Your task to perform on an android device: toggle airplane mode Image 0: 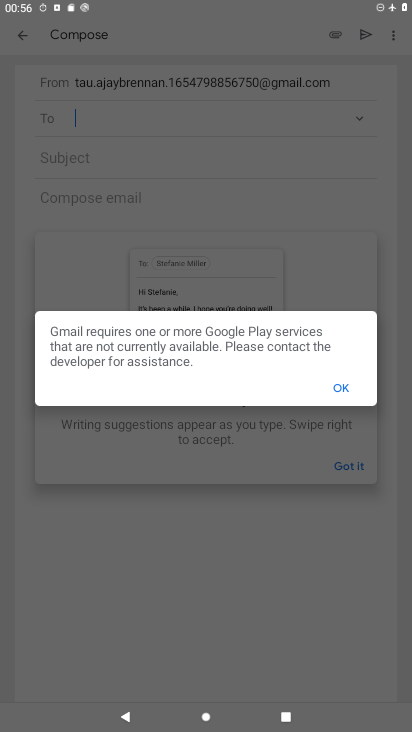
Step 0: press home button
Your task to perform on an android device: toggle airplane mode Image 1: 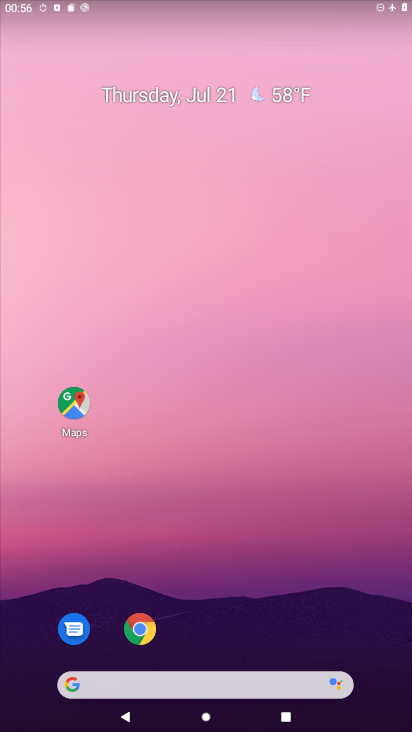
Step 1: drag from (221, 637) to (227, 193)
Your task to perform on an android device: toggle airplane mode Image 2: 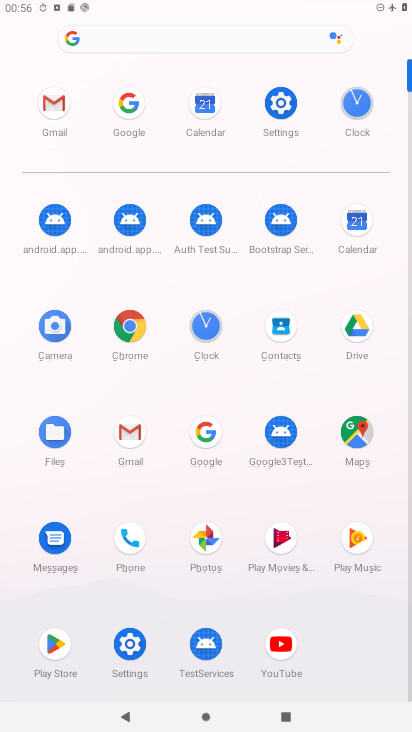
Step 2: click (277, 130)
Your task to perform on an android device: toggle airplane mode Image 3: 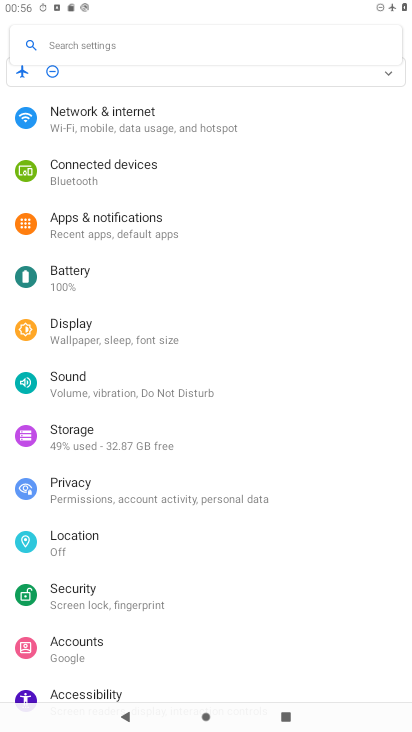
Step 3: click (171, 130)
Your task to perform on an android device: toggle airplane mode Image 4: 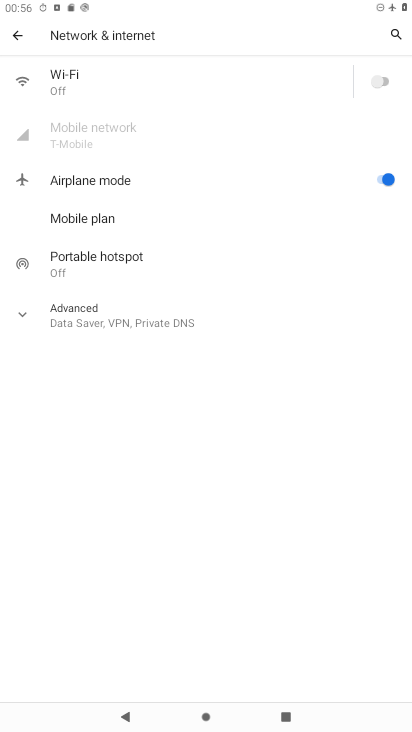
Step 4: click (384, 186)
Your task to perform on an android device: toggle airplane mode Image 5: 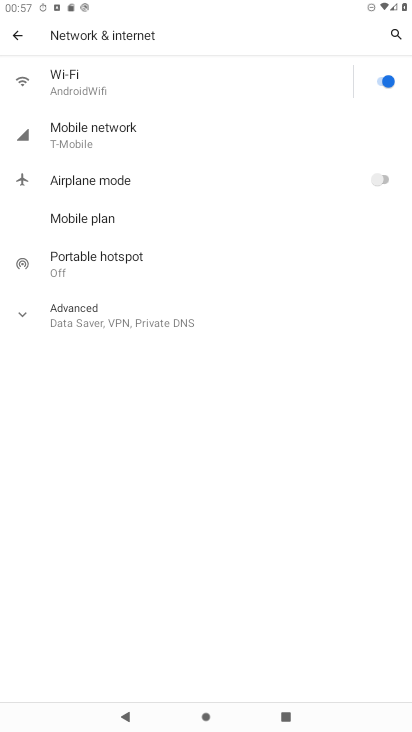
Step 5: task complete